Your task to perform on an android device: When is my next meeting? Image 0: 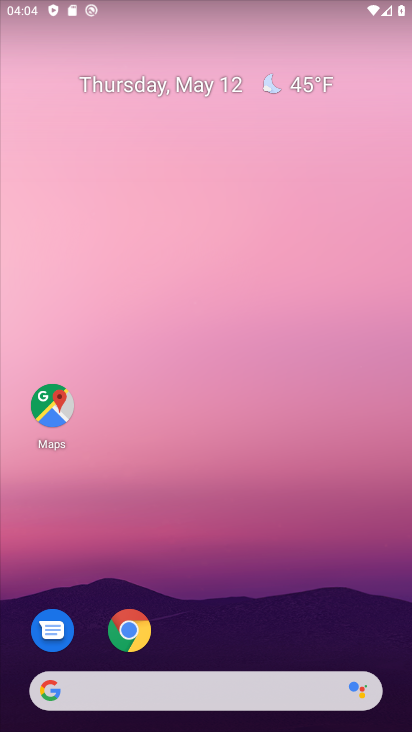
Step 0: drag from (224, 638) to (241, 214)
Your task to perform on an android device: When is my next meeting? Image 1: 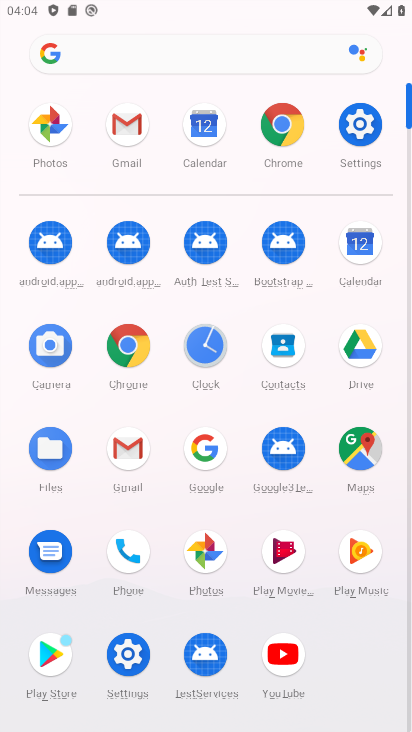
Step 1: click (368, 243)
Your task to perform on an android device: When is my next meeting? Image 2: 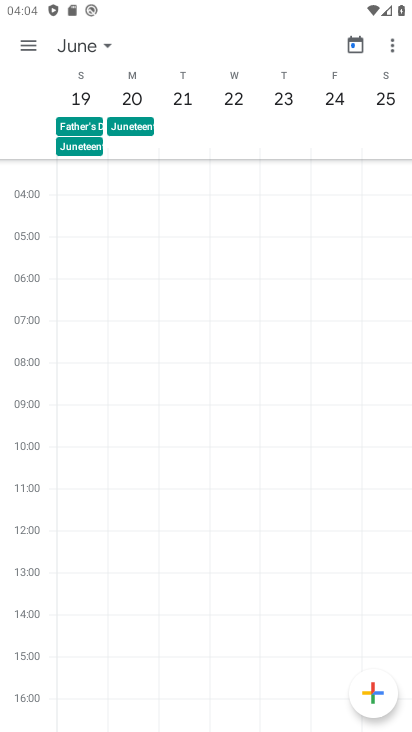
Step 2: click (27, 49)
Your task to perform on an android device: When is my next meeting? Image 3: 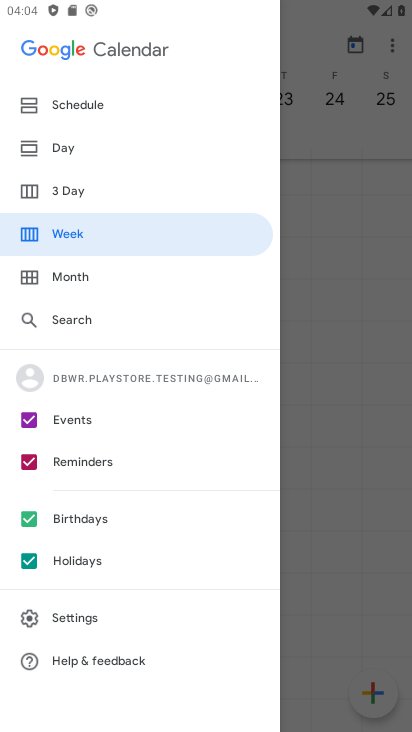
Step 3: click (82, 111)
Your task to perform on an android device: When is my next meeting? Image 4: 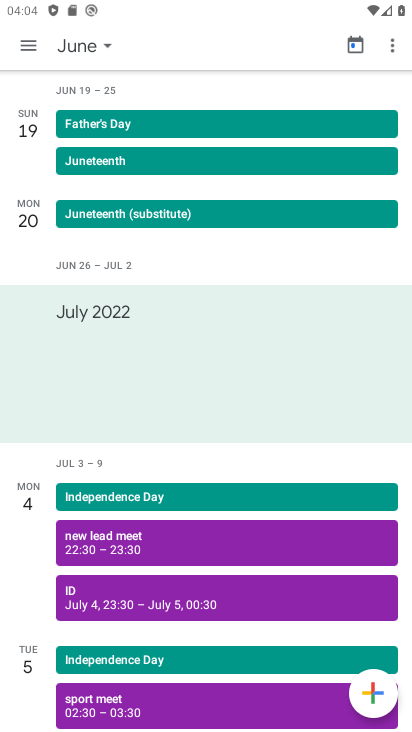
Step 4: task complete